Your task to perform on an android device: move a message to another label in the gmail app Image 0: 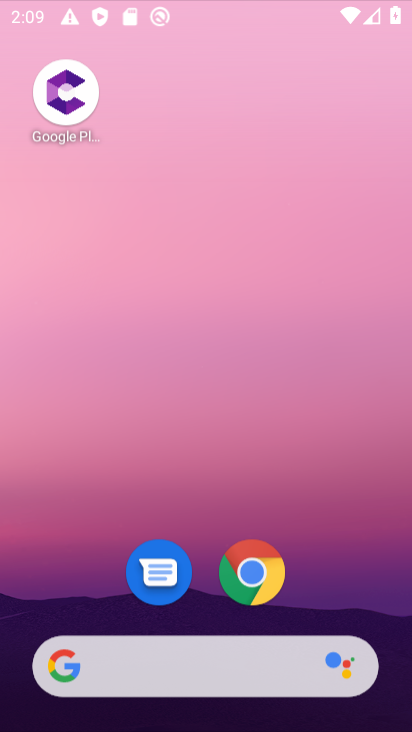
Step 0: click (253, 566)
Your task to perform on an android device: move a message to another label in the gmail app Image 1: 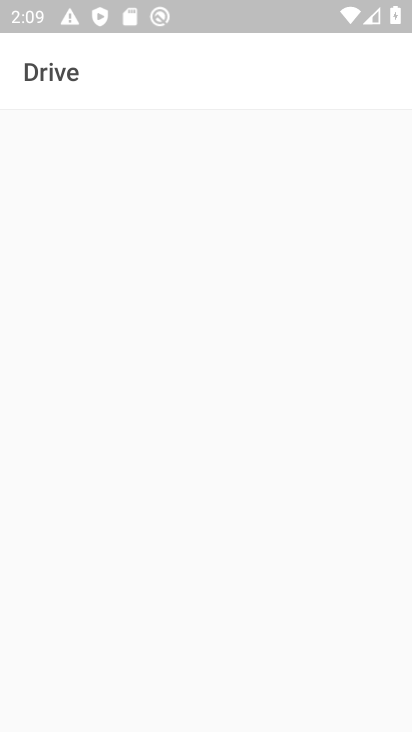
Step 1: press home button
Your task to perform on an android device: move a message to another label in the gmail app Image 2: 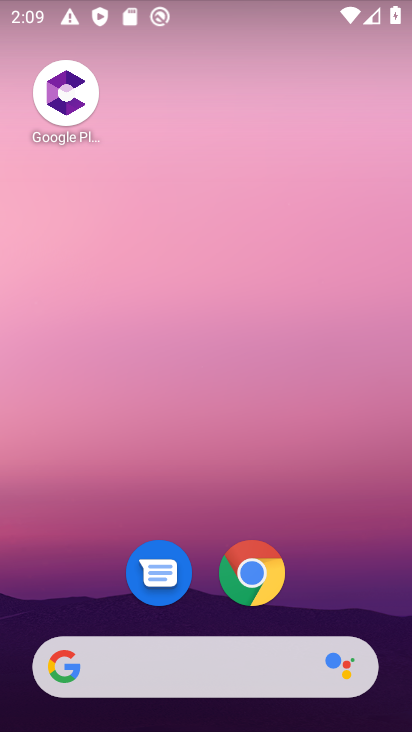
Step 2: drag from (89, 540) to (153, 45)
Your task to perform on an android device: move a message to another label in the gmail app Image 3: 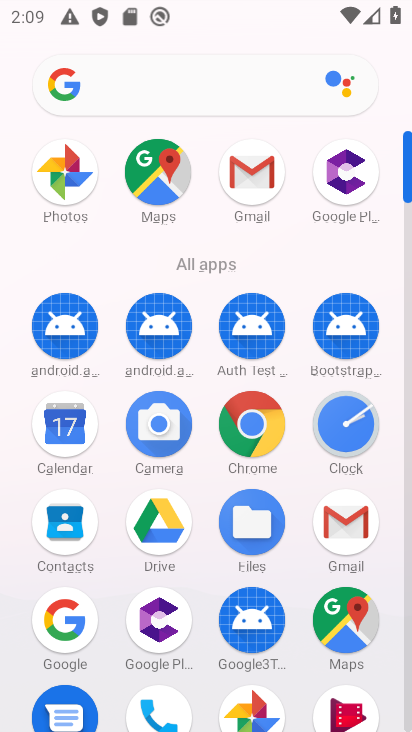
Step 3: click (257, 177)
Your task to perform on an android device: move a message to another label in the gmail app Image 4: 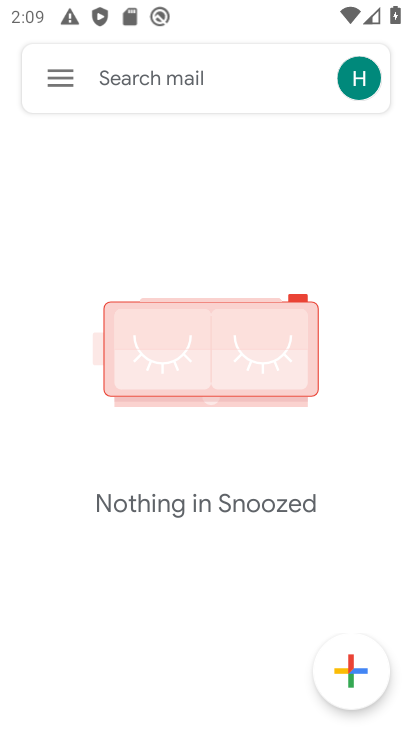
Step 4: task complete